Your task to perform on an android device: Open calendar and show me the second week of next month Image 0: 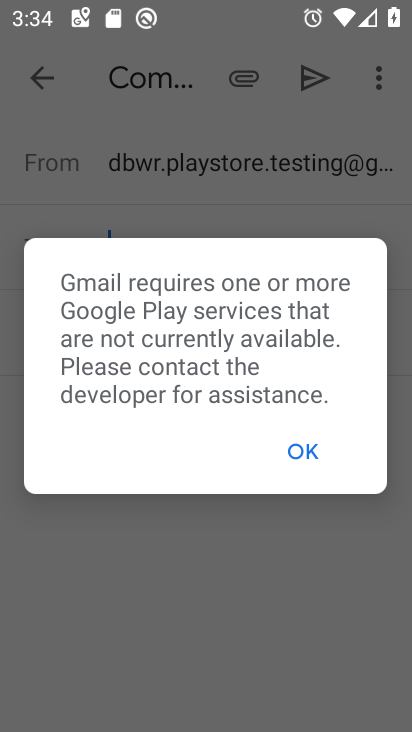
Step 0: press back button
Your task to perform on an android device: Open calendar and show me the second week of next month Image 1: 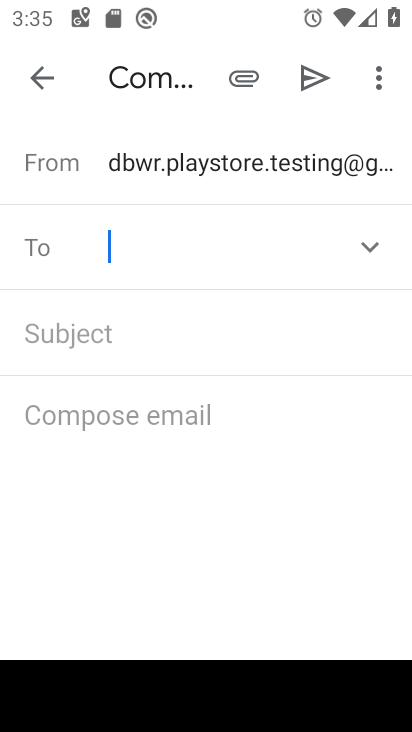
Step 1: press back button
Your task to perform on an android device: Open calendar and show me the second week of next month Image 2: 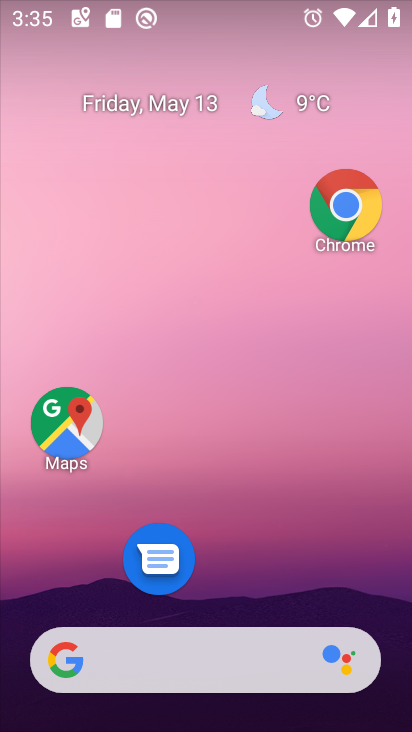
Step 2: drag from (230, 606) to (255, 135)
Your task to perform on an android device: Open calendar and show me the second week of next month Image 3: 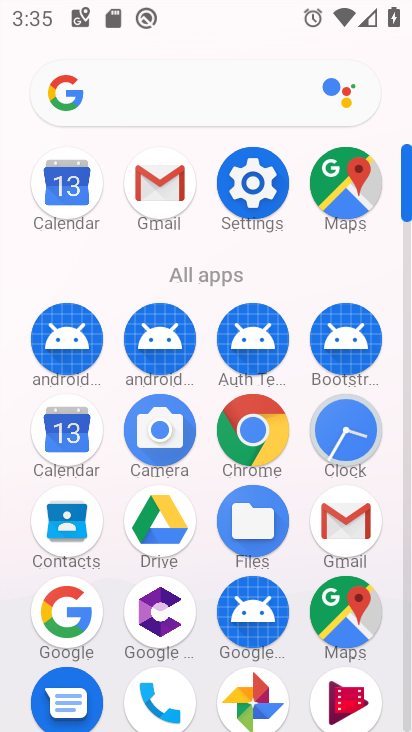
Step 3: click (75, 439)
Your task to perform on an android device: Open calendar and show me the second week of next month Image 4: 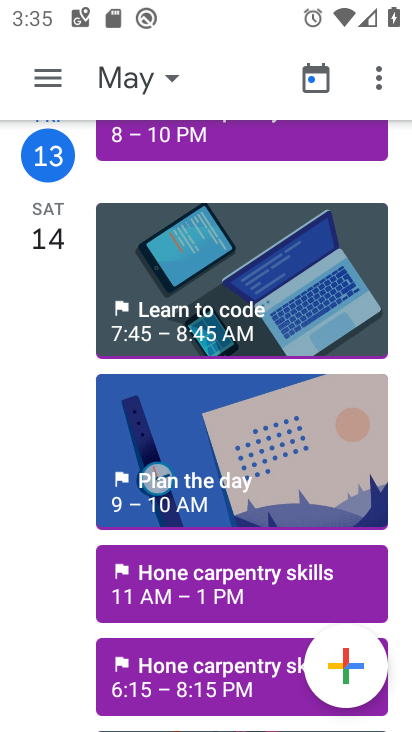
Step 4: click (159, 83)
Your task to perform on an android device: Open calendar and show me the second week of next month Image 5: 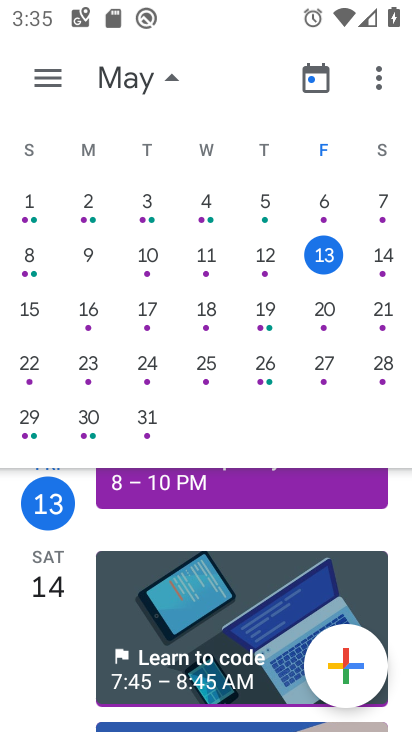
Step 5: drag from (362, 358) to (1, 317)
Your task to perform on an android device: Open calendar and show me the second week of next month Image 6: 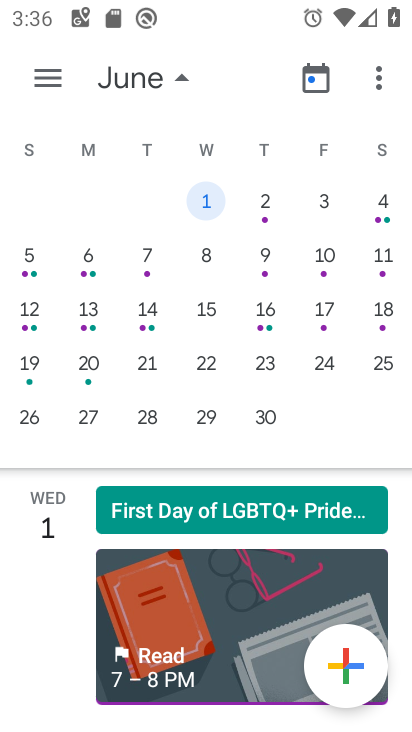
Step 6: click (28, 340)
Your task to perform on an android device: Open calendar and show me the second week of next month Image 7: 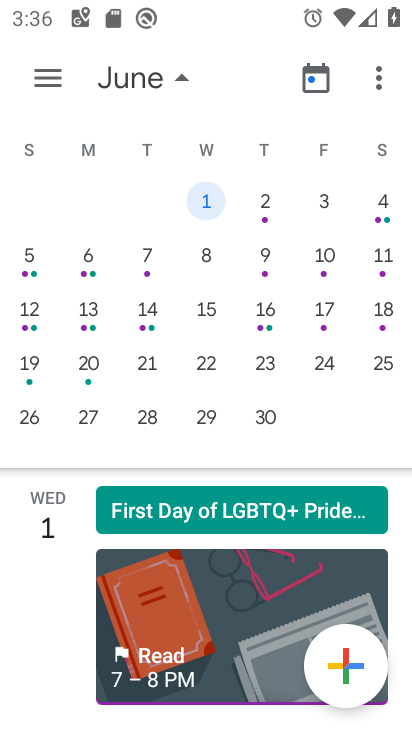
Step 7: click (82, 259)
Your task to perform on an android device: Open calendar and show me the second week of next month Image 8: 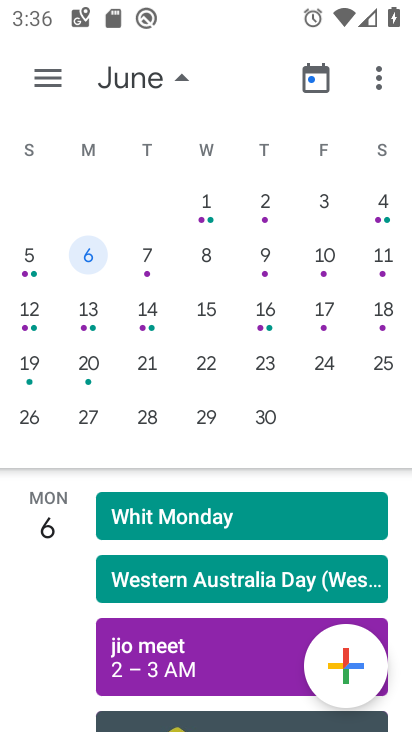
Step 8: task complete